Your task to perform on an android device: toggle javascript in the chrome app Image 0: 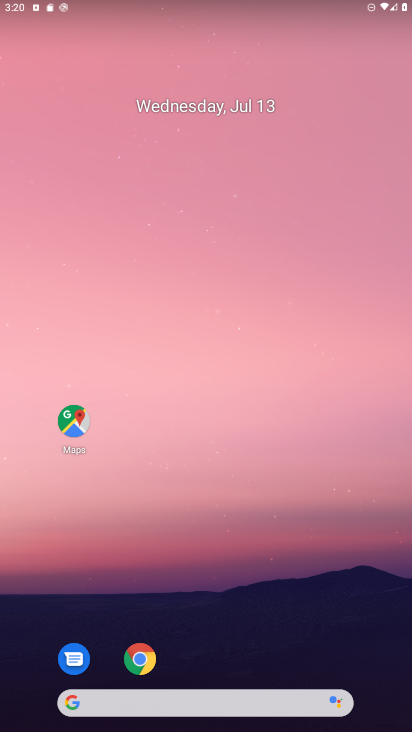
Step 0: click (140, 660)
Your task to perform on an android device: toggle javascript in the chrome app Image 1: 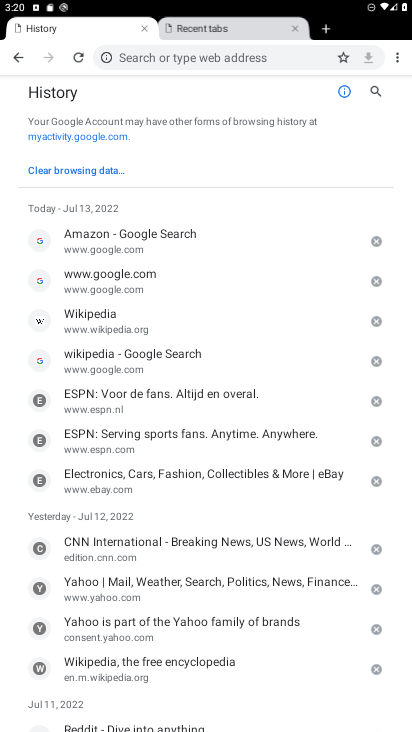
Step 1: click (396, 59)
Your task to perform on an android device: toggle javascript in the chrome app Image 2: 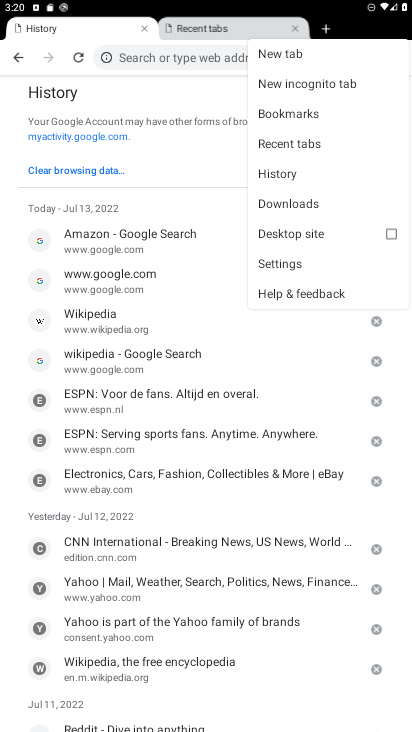
Step 2: click (275, 263)
Your task to perform on an android device: toggle javascript in the chrome app Image 3: 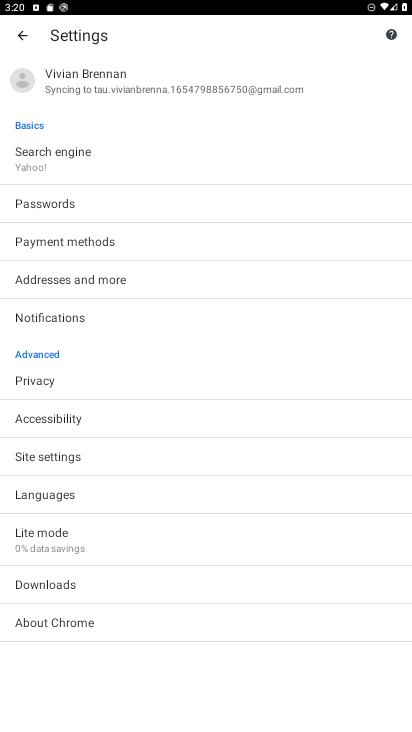
Step 3: click (54, 454)
Your task to perform on an android device: toggle javascript in the chrome app Image 4: 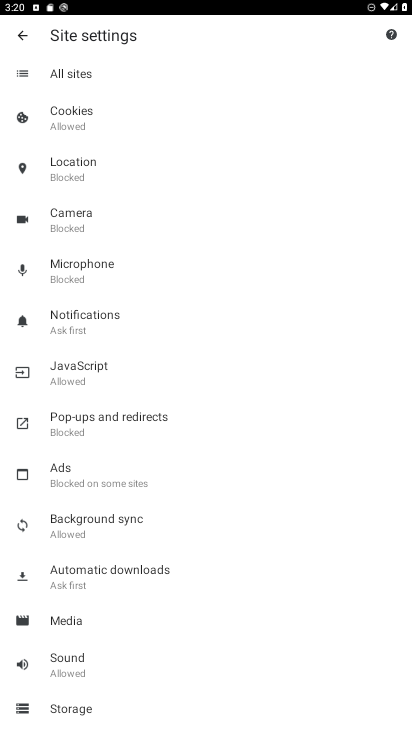
Step 4: click (77, 368)
Your task to perform on an android device: toggle javascript in the chrome app Image 5: 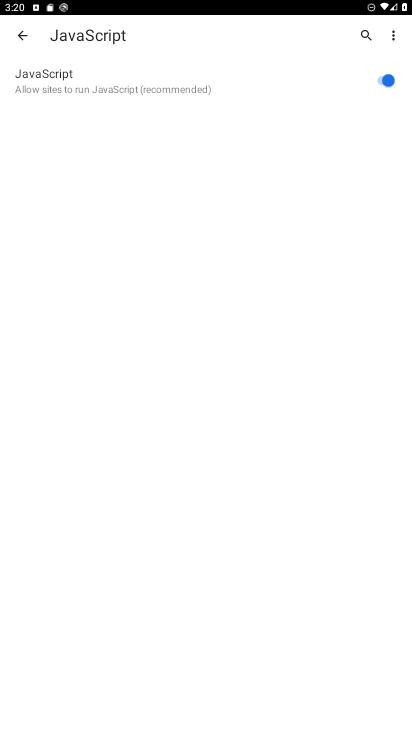
Step 5: click (375, 78)
Your task to perform on an android device: toggle javascript in the chrome app Image 6: 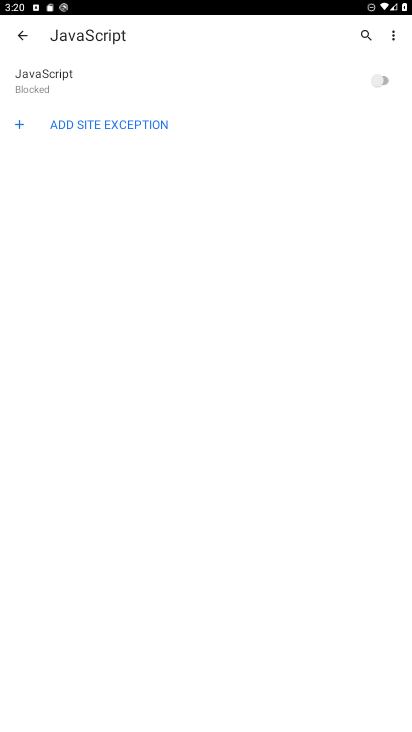
Step 6: task complete